Your task to perform on an android device: Go to Yahoo.com Image 0: 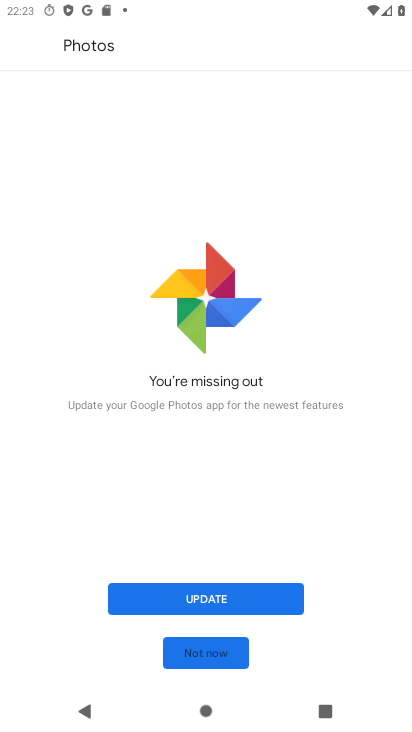
Step 0: press home button
Your task to perform on an android device: Go to Yahoo.com Image 1: 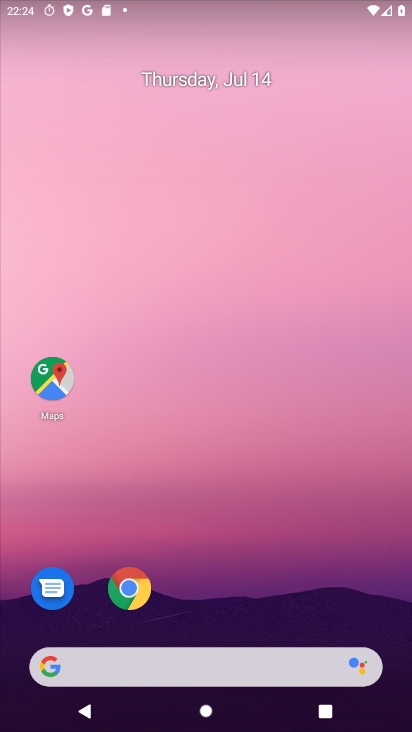
Step 1: click (127, 592)
Your task to perform on an android device: Go to Yahoo.com Image 2: 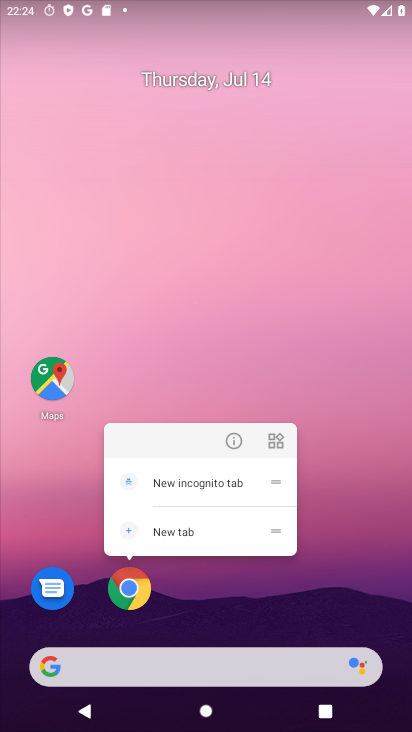
Step 2: click (132, 592)
Your task to perform on an android device: Go to Yahoo.com Image 3: 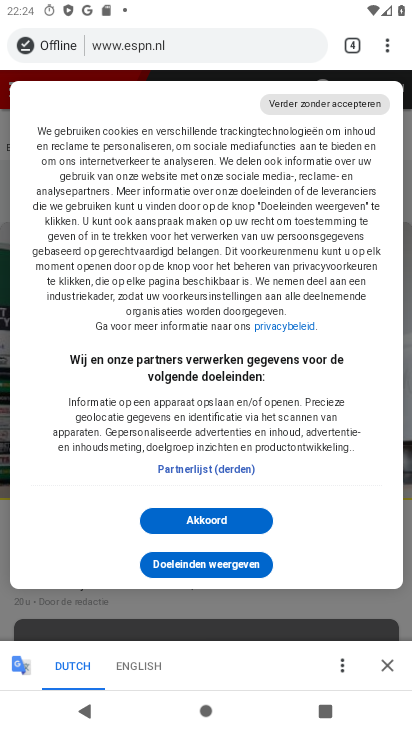
Step 3: press back button
Your task to perform on an android device: Go to Yahoo.com Image 4: 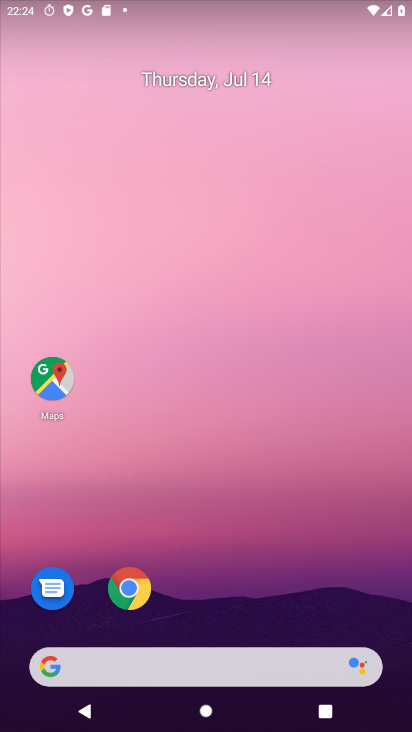
Step 4: click (131, 585)
Your task to perform on an android device: Go to Yahoo.com Image 5: 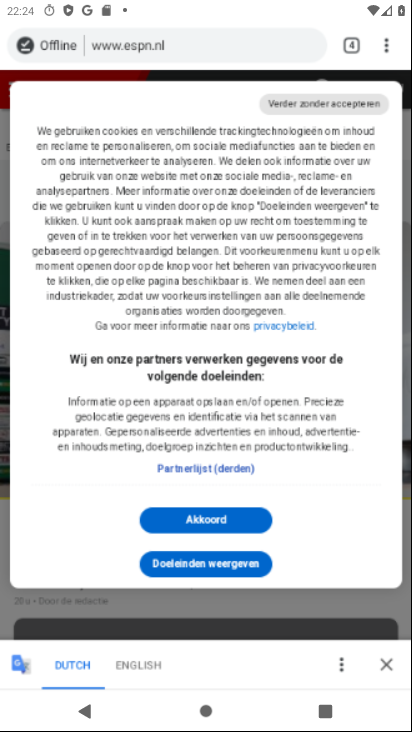
Step 5: click (355, 40)
Your task to perform on an android device: Go to Yahoo.com Image 6: 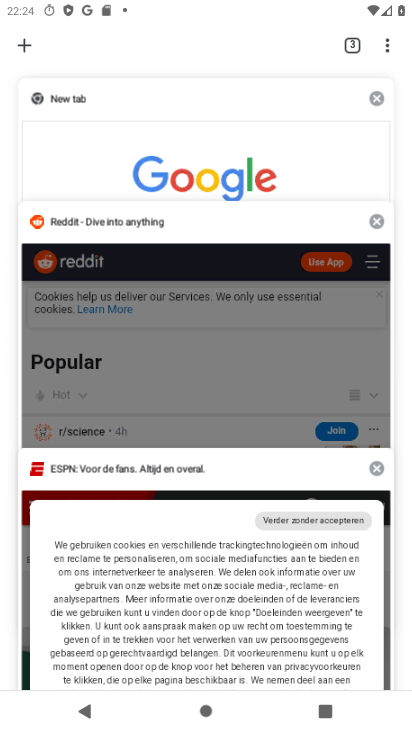
Step 6: click (24, 43)
Your task to perform on an android device: Go to Yahoo.com Image 7: 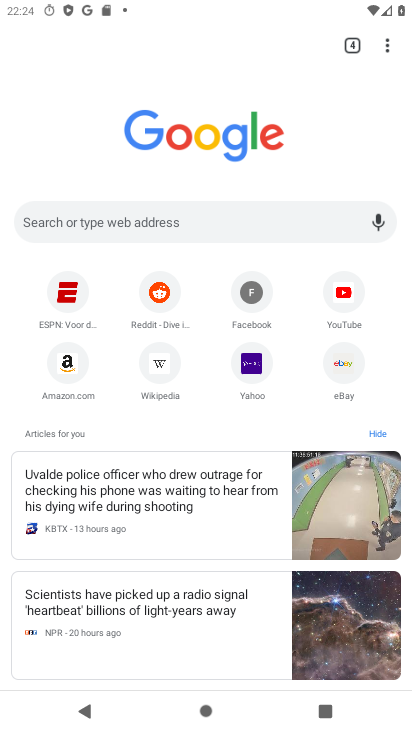
Step 7: click (255, 366)
Your task to perform on an android device: Go to Yahoo.com Image 8: 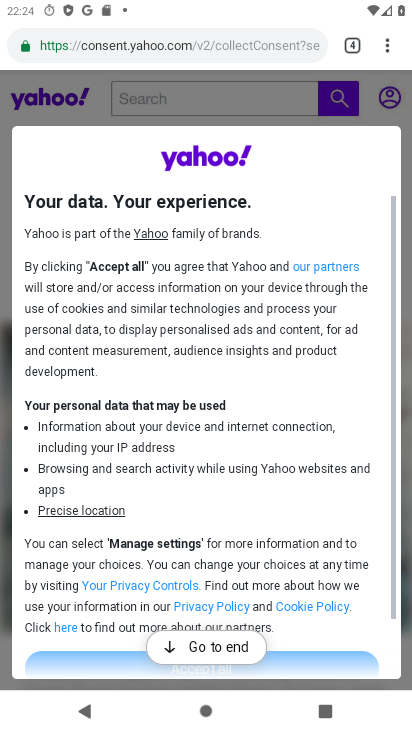
Step 8: task complete